Your task to perform on an android device: delete browsing data in the chrome app Image 0: 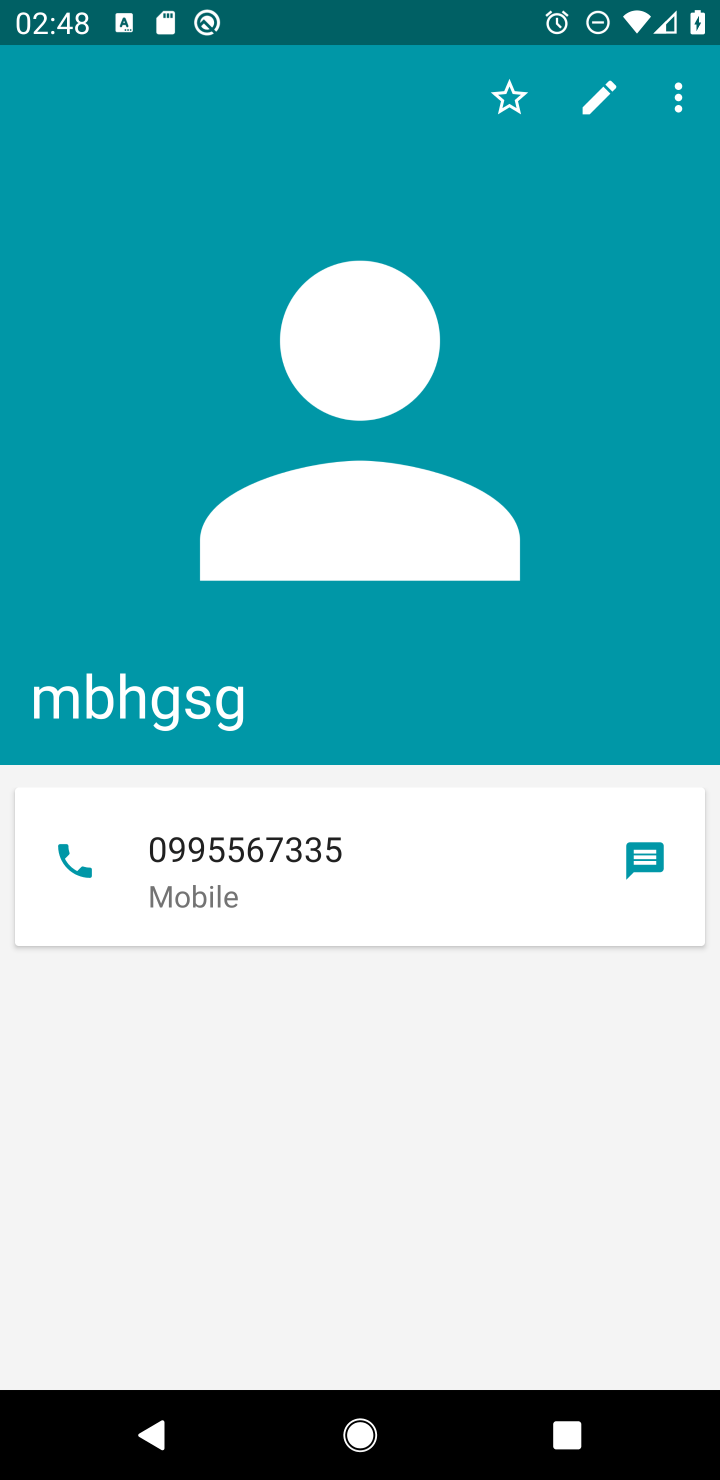
Step 0: press home button
Your task to perform on an android device: delete browsing data in the chrome app Image 1: 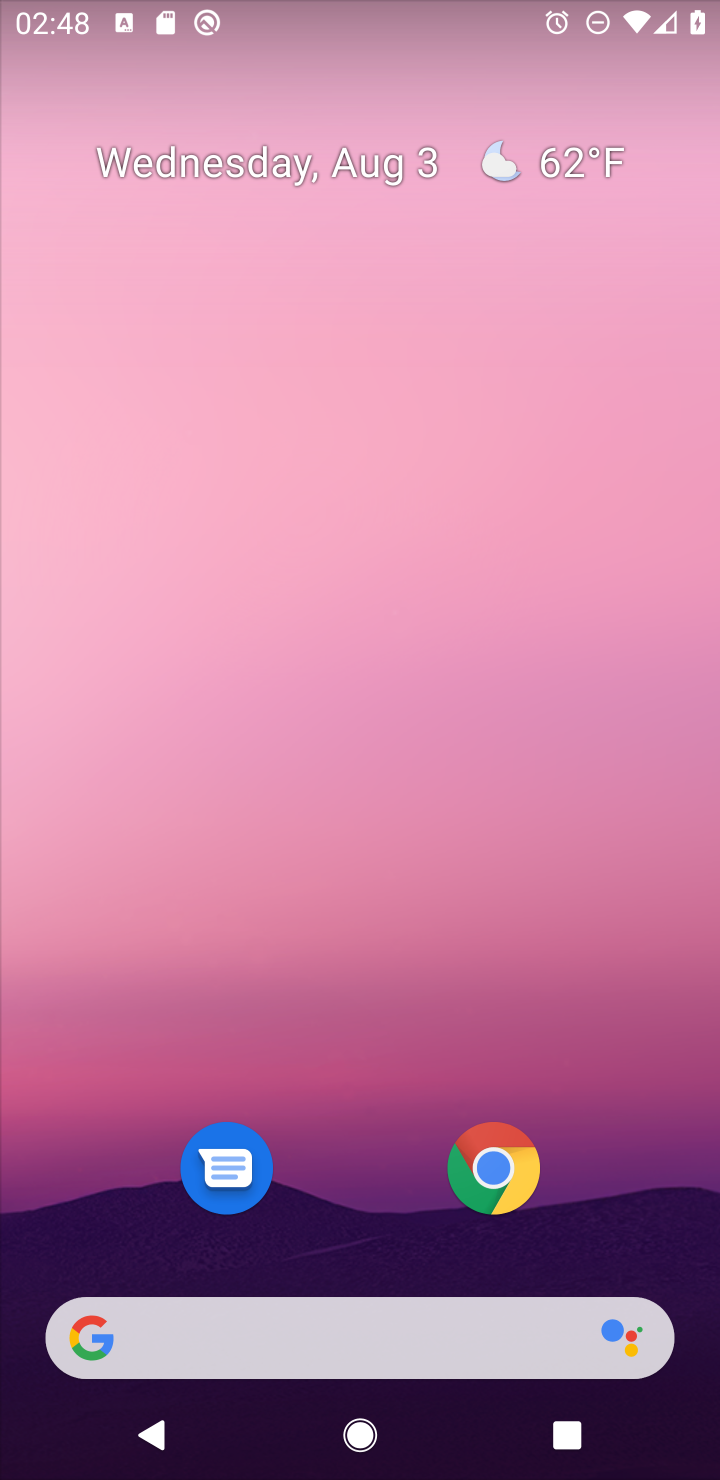
Step 1: click (497, 1172)
Your task to perform on an android device: delete browsing data in the chrome app Image 2: 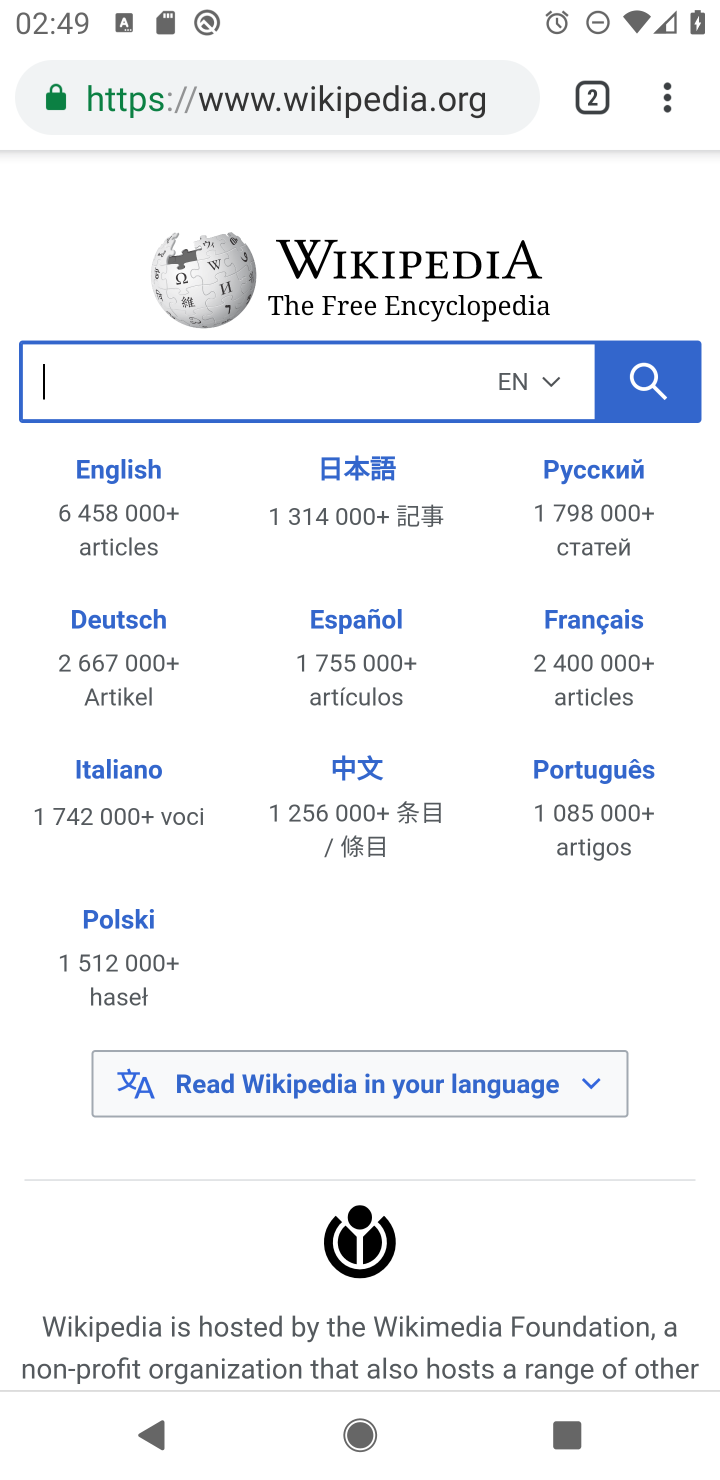
Step 2: click (658, 110)
Your task to perform on an android device: delete browsing data in the chrome app Image 3: 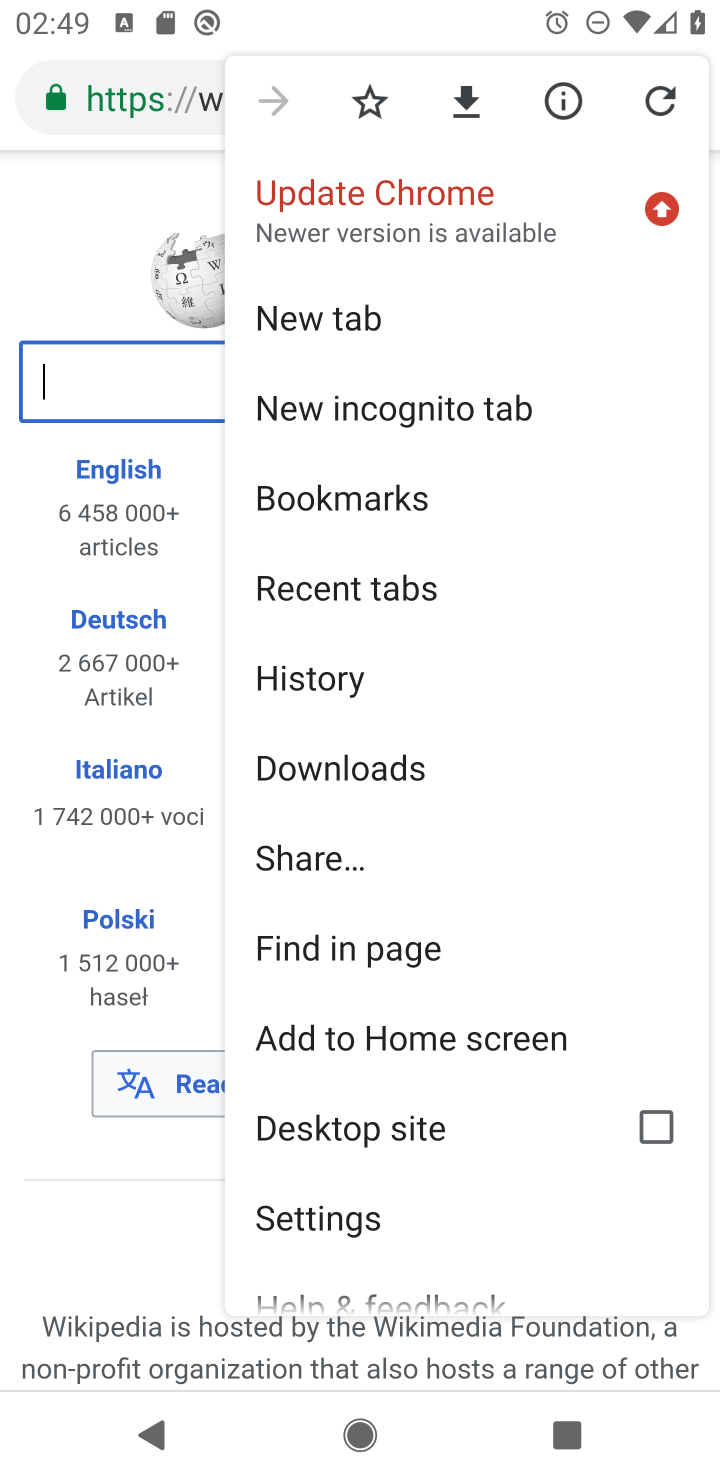
Step 3: click (299, 682)
Your task to perform on an android device: delete browsing data in the chrome app Image 4: 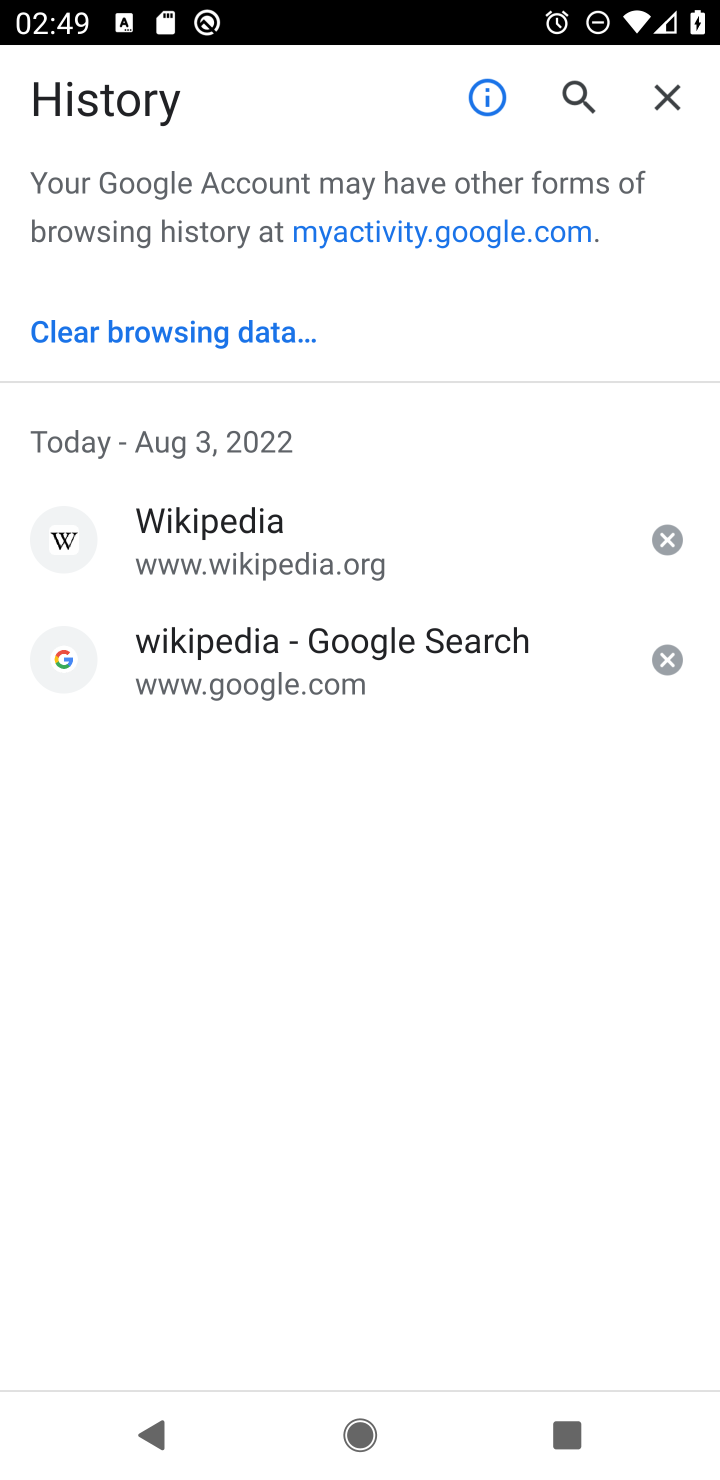
Step 4: click (144, 341)
Your task to perform on an android device: delete browsing data in the chrome app Image 5: 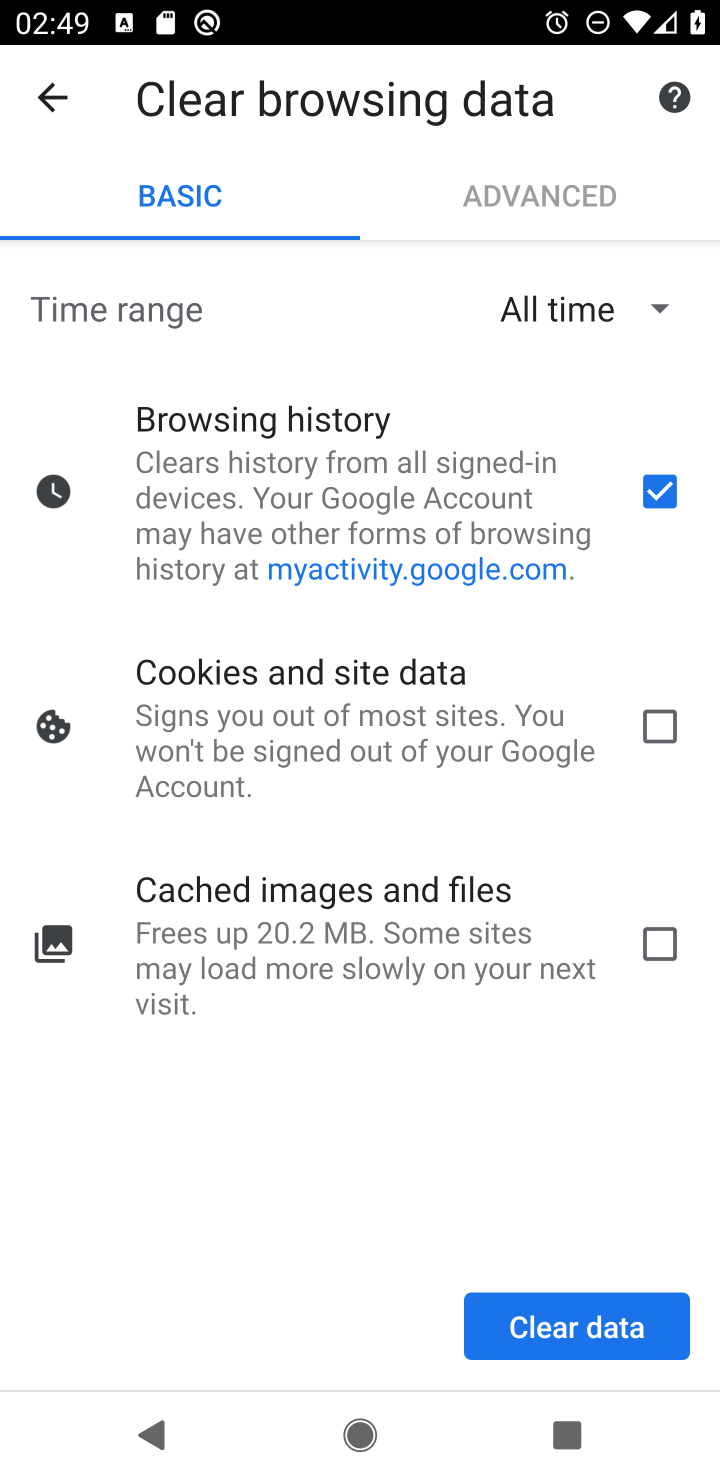
Step 5: click (561, 1326)
Your task to perform on an android device: delete browsing data in the chrome app Image 6: 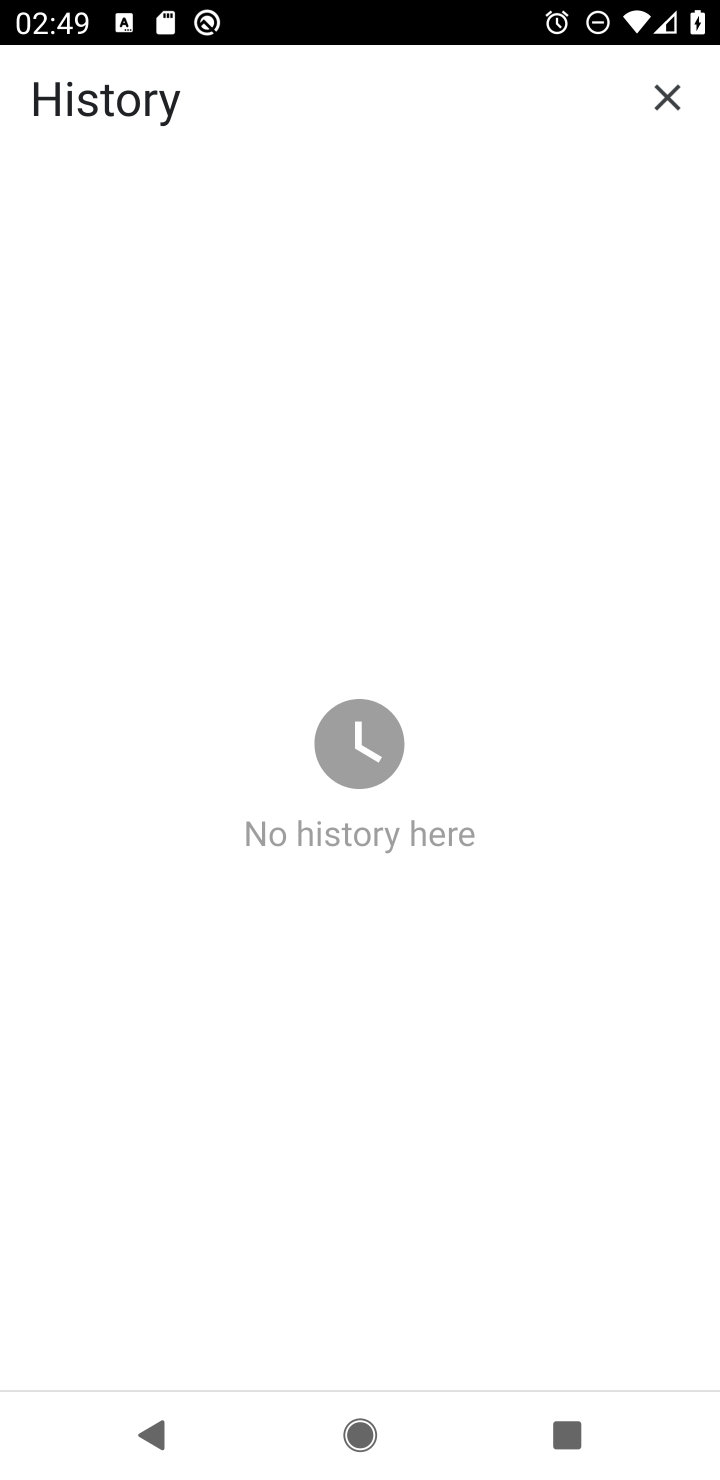
Step 6: task complete